Your task to perform on an android device: open device folders in google photos Image 0: 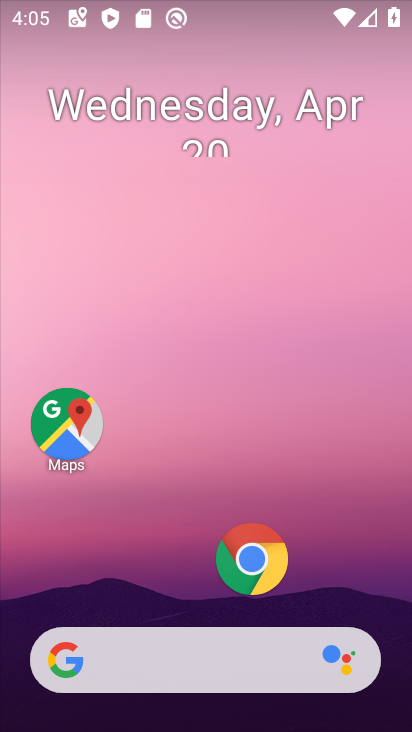
Step 0: drag from (176, 594) to (261, 271)
Your task to perform on an android device: open device folders in google photos Image 1: 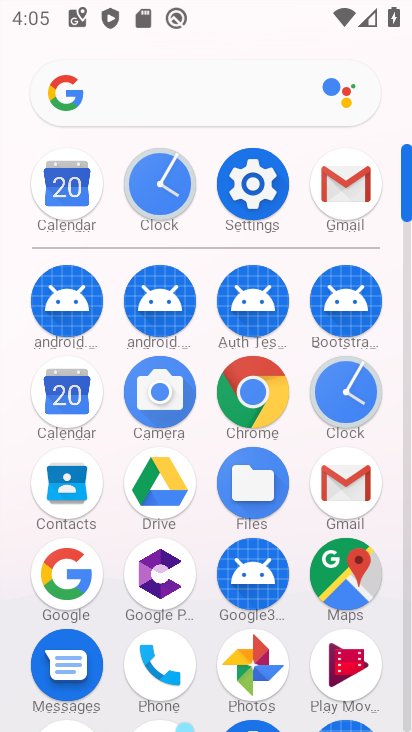
Step 1: click (277, 670)
Your task to perform on an android device: open device folders in google photos Image 2: 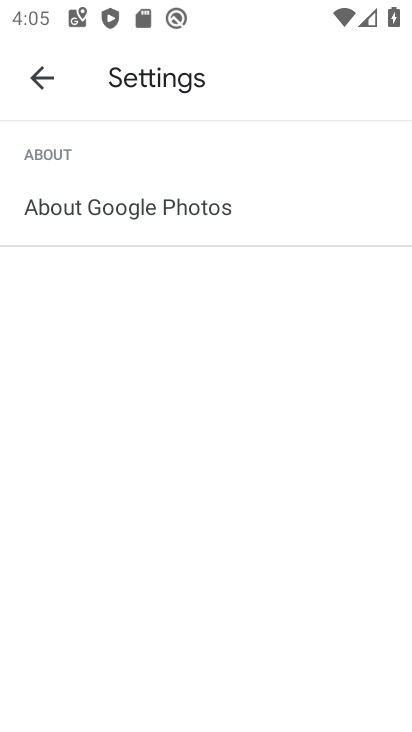
Step 2: click (48, 81)
Your task to perform on an android device: open device folders in google photos Image 3: 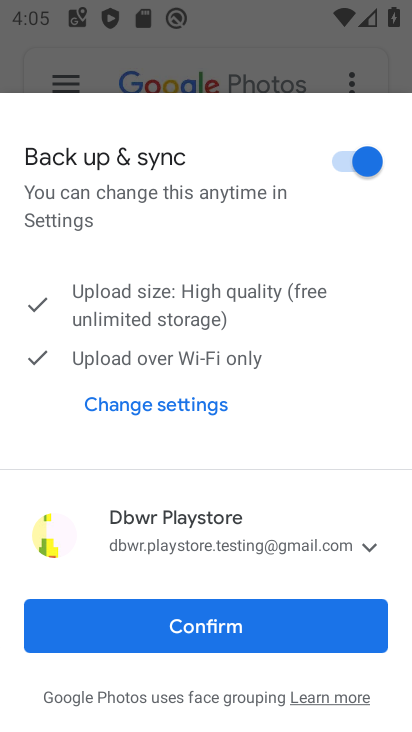
Step 3: click (214, 623)
Your task to perform on an android device: open device folders in google photos Image 4: 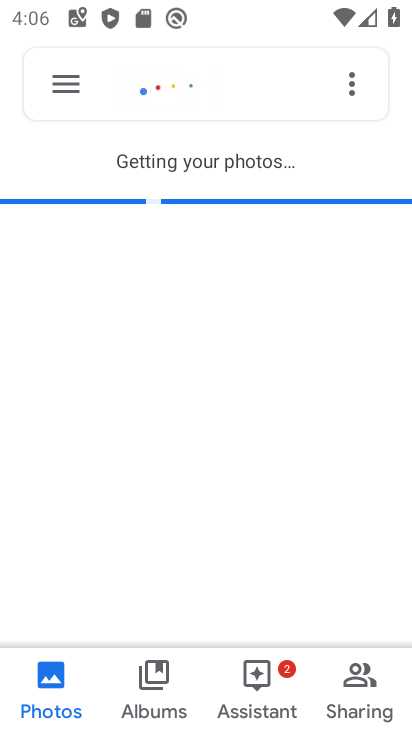
Step 4: click (75, 90)
Your task to perform on an android device: open device folders in google photos Image 5: 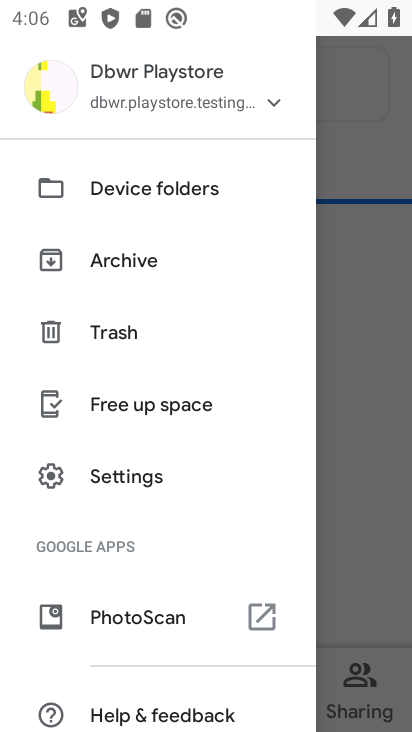
Step 5: click (107, 183)
Your task to perform on an android device: open device folders in google photos Image 6: 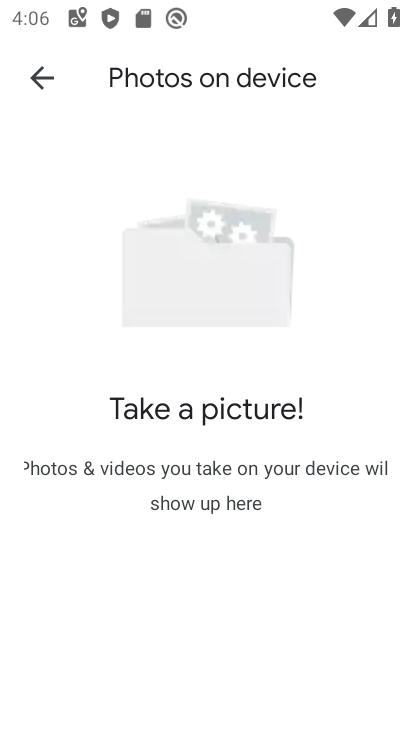
Step 6: task complete